Your task to perform on an android device: What's the weather today? Image 0: 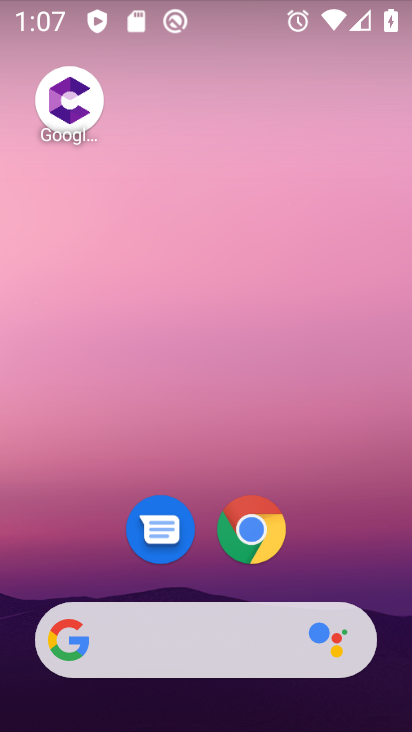
Step 0: drag from (1, 305) to (270, 274)
Your task to perform on an android device: What's the weather today? Image 1: 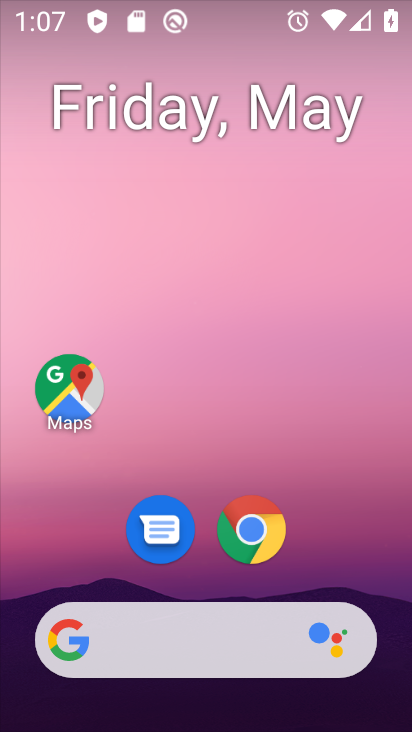
Step 1: drag from (3, 301) to (288, 294)
Your task to perform on an android device: What's the weather today? Image 2: 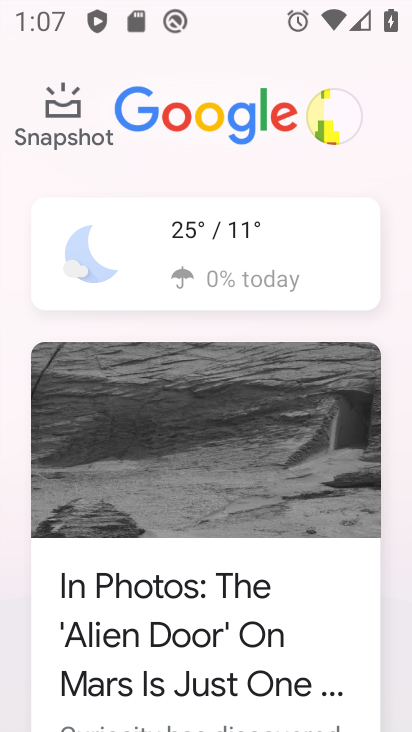
Step 2: click (196, 224)
Your task to perform on an android device: What's the weather today? Image 3: 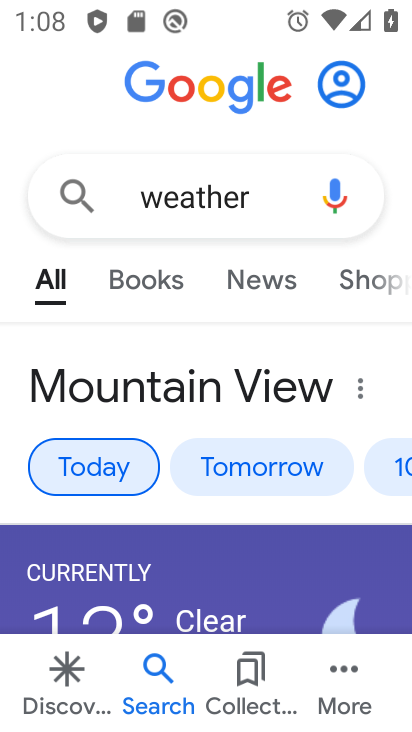
Step 3: task complete